Your task to perform on an android device: Go to calendar. Show me events next week Image 0: 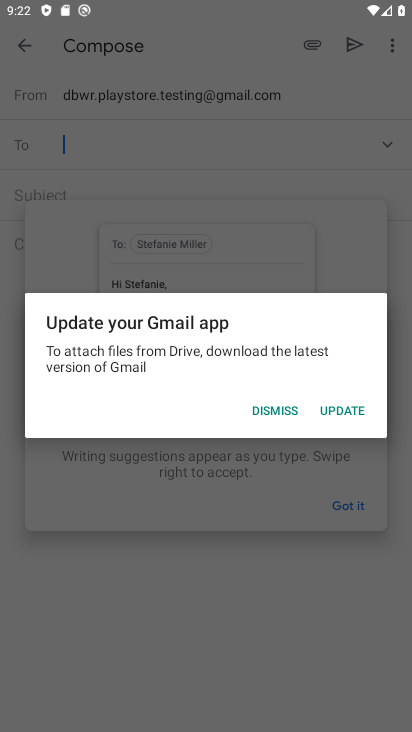
Step 0: press home button
Your task to perform on an android device: Go to calendar. Show me events next week Image 1: 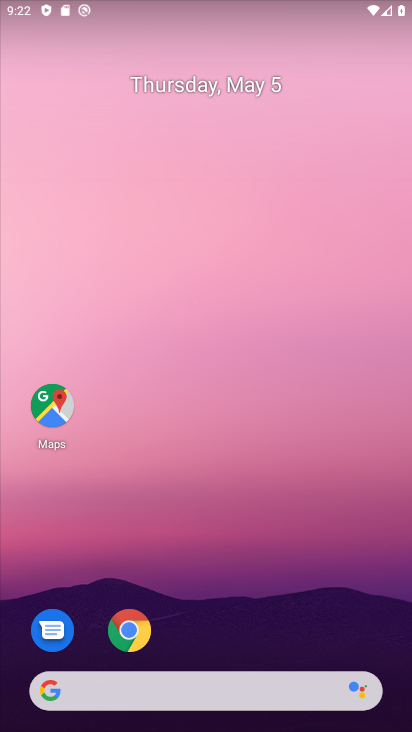
Step 1: drag from (201, 506) to (280, 4)
Your task to perform on an android device: Go to calendar. Show me events next week Image 2: 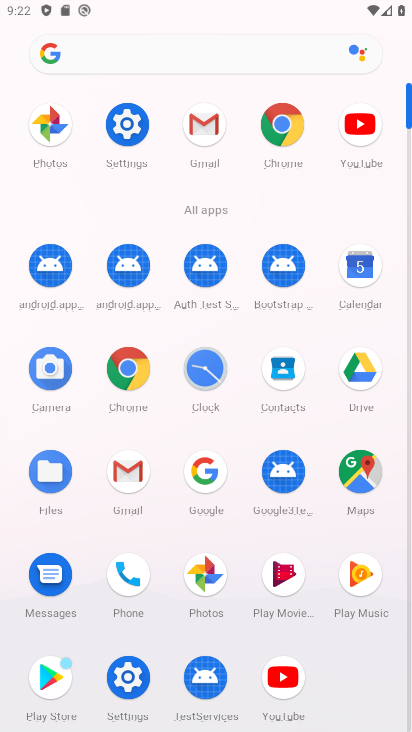
Step 2: click (372, 260)
Your task to perform on an android device: Go to calendar. Show me events next week Image 3: 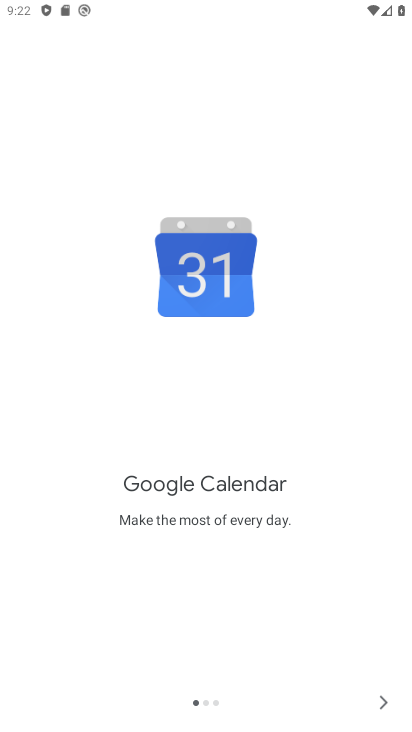
Step 3: click (386, 704)
Your task to perform on an android device: Go to calendar. Show me events next week Image 4: 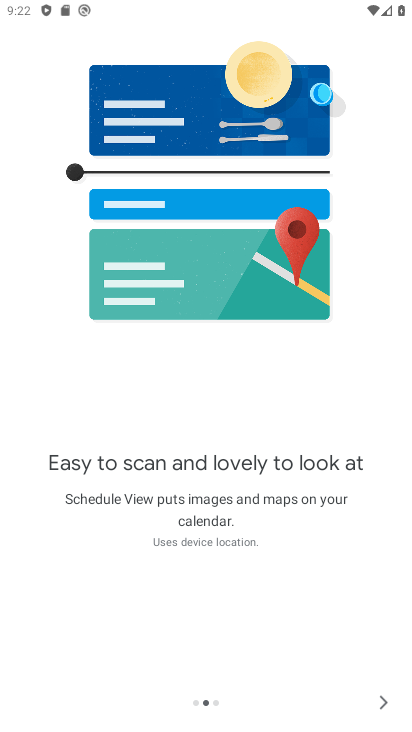
Step 4: click (386, 704)
Your task to perform on an android device: Go to calendar. Show me events next week Image 5: 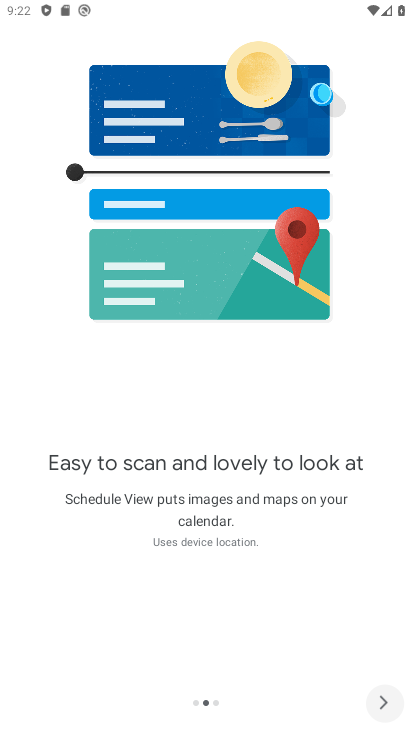
Step 5: click (386, 704)
Your task to perform on an android device: Go to calendar. Show me events next week Image 6: 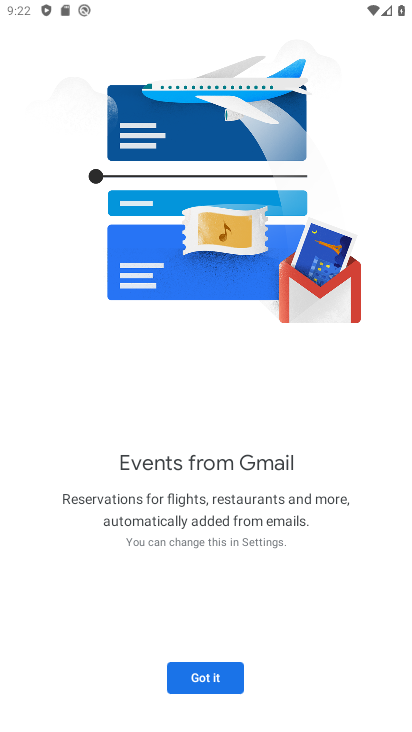
Step 6: click (216, 679)
Your task to perform on an android device: Go to calendar. Show me events next week Image 7: 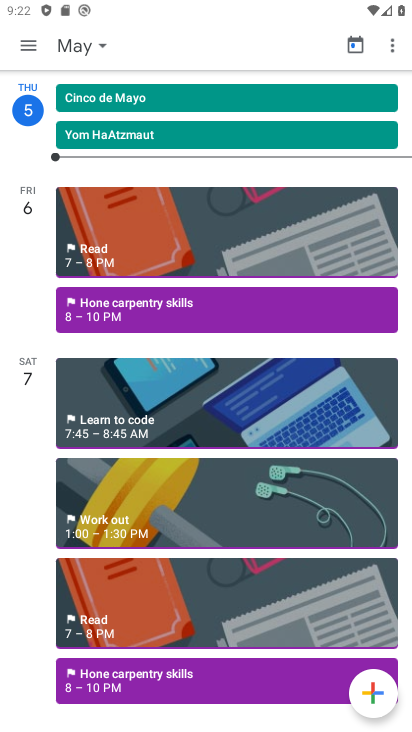
Step 7: click (104, 42)
Your task to perform on an android device: Go to calendar. Show me events next week Image 8: 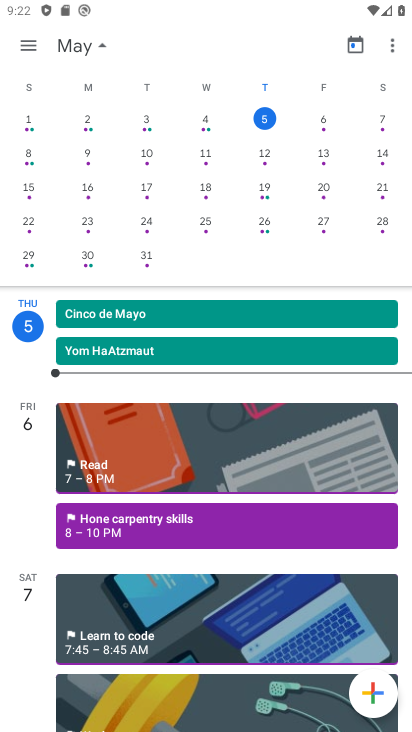
Step 8: click (22, 42)
Your task to perform on an android device: Go to calendar. Show me events next week Image 9: 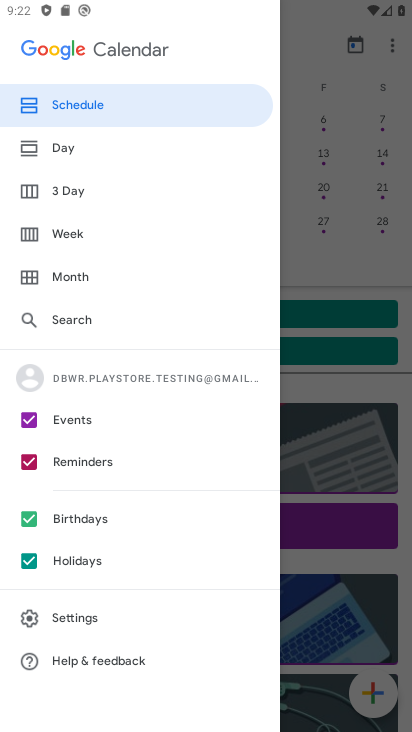
Step 9: click (76, 226)
Your task to perform on an android device: Go to calendar. Show me events next week Image 10: 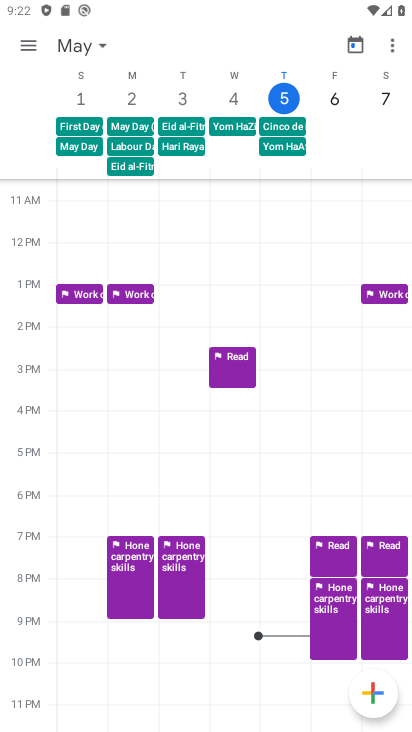
Step 10: drag from (322, 288) to (72, 314)
Your task to perform on an android device: Go to calendar. Show me events next week Image 11: 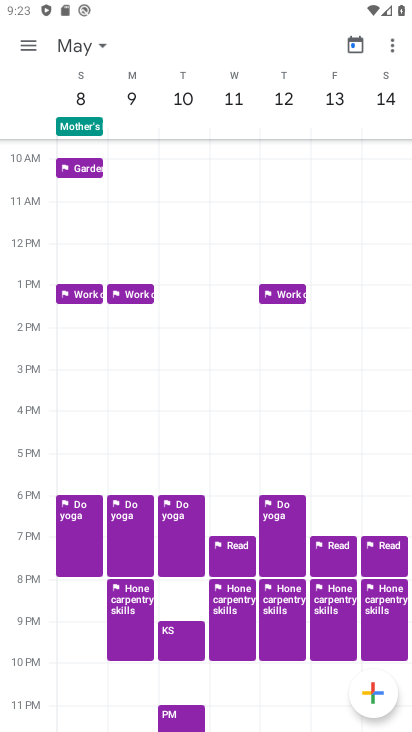
Step 11: click (28, 54)
Your task to perform on an android device: Go to calendar. Show me events next week Image 12: 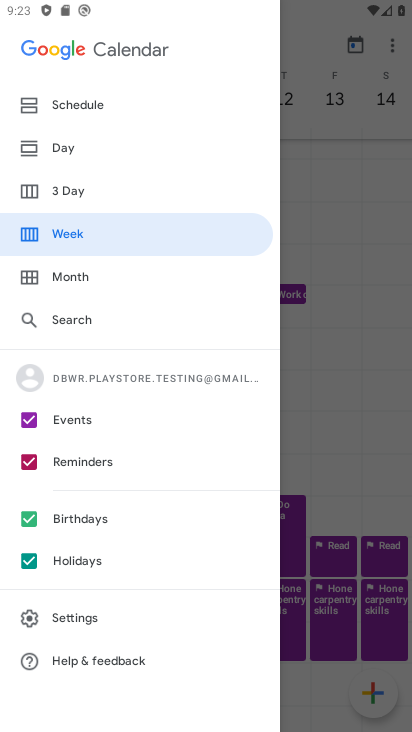
Step 12: click (28, 564)
Your task to perform on an android device: Go to calendar. Show me events next week Image 13: 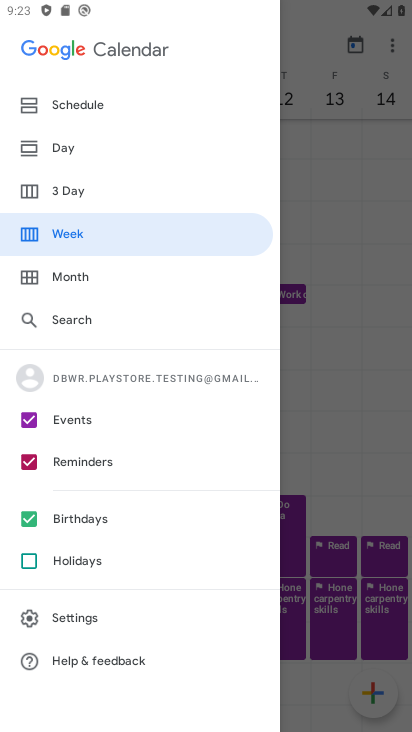
Step 13: click (32, 518)
Your task to perform on an android device: Go to calendar. Show me events next week Image 14: 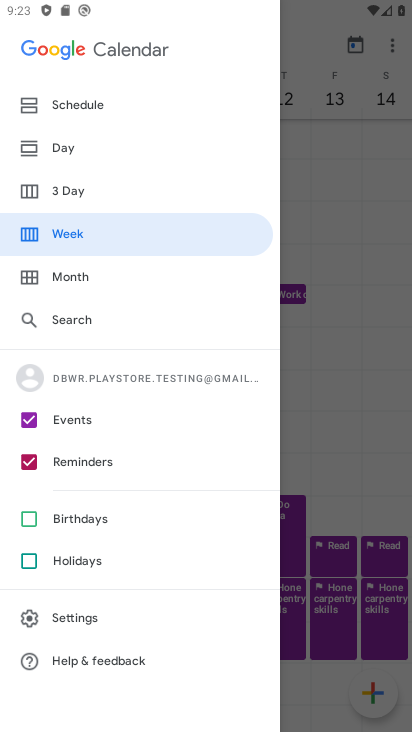
Step 14: click (29, 468)
Your task to perform on an android device: Go to calendar. Show me events next week Image 15: 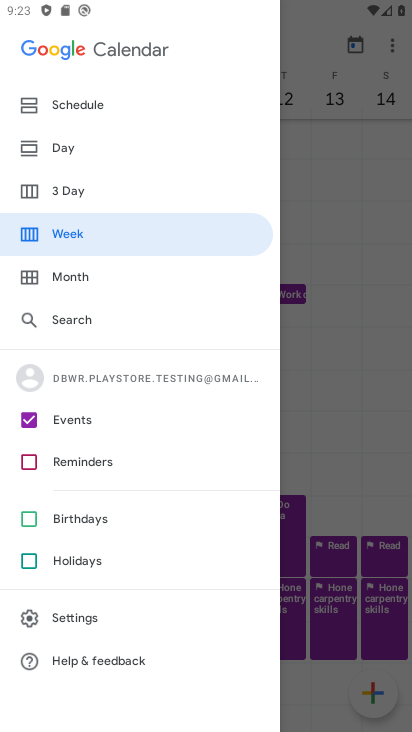
Step 15: click (328, 487)
Your task to perform on an android device: Go to calendar. Show me events next week Image 16: 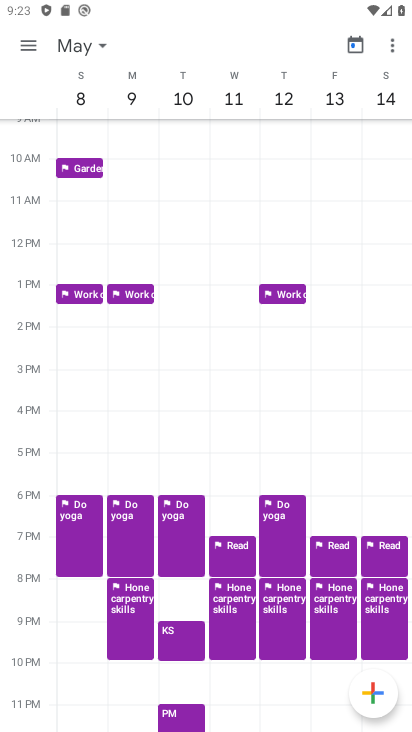
Step 16: task complete